Your task to perform on an android device: find photos in the google photos app Image 0: 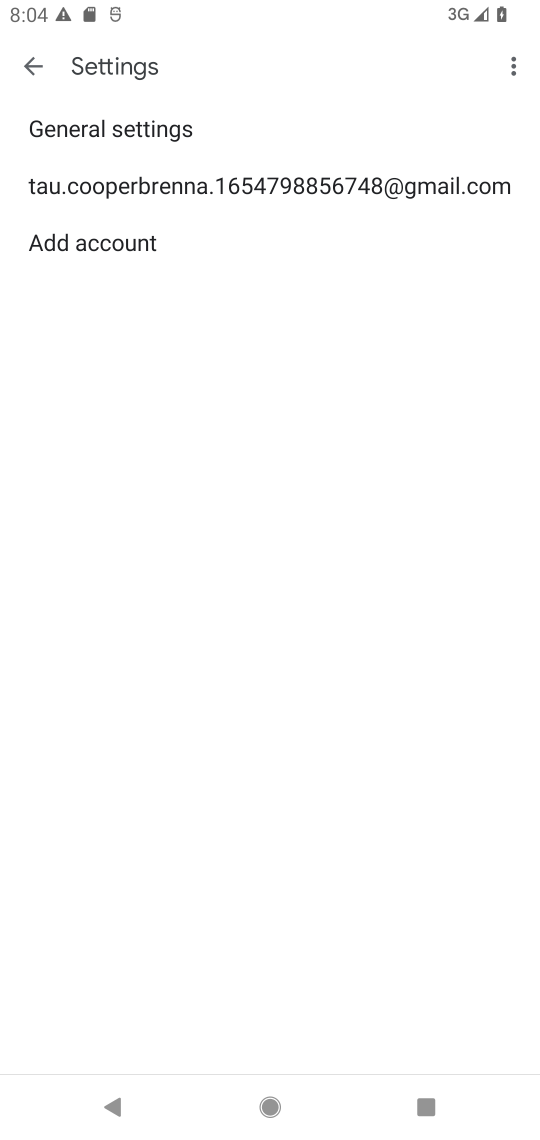
Step 0: press home button
Your task to perform on an android device: find photos in the google photos app Image 1: 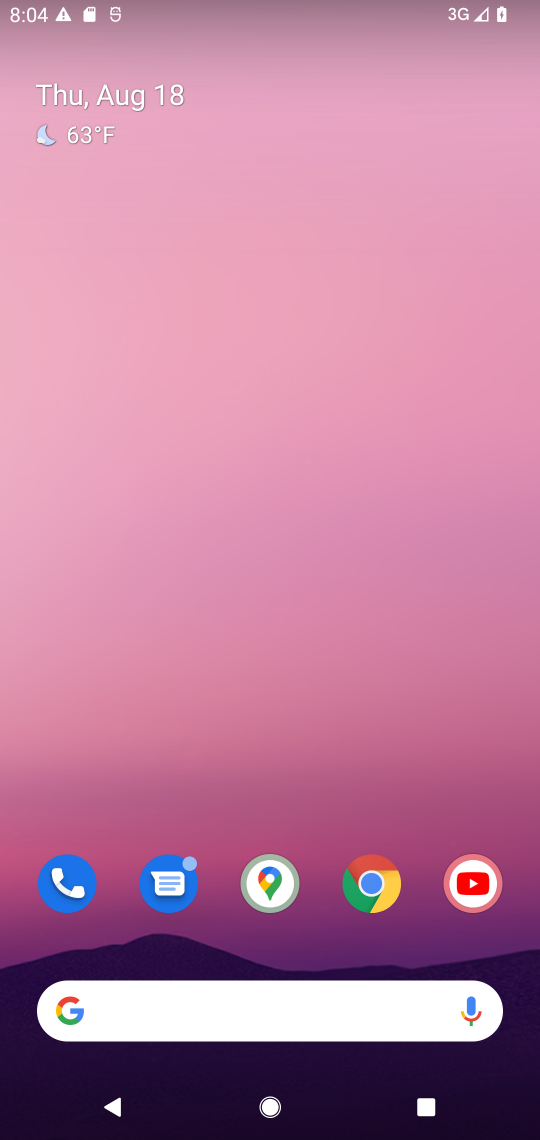
Step 1: task complete